Your task to perform on an android device: change the upload size in google photos Image 0: 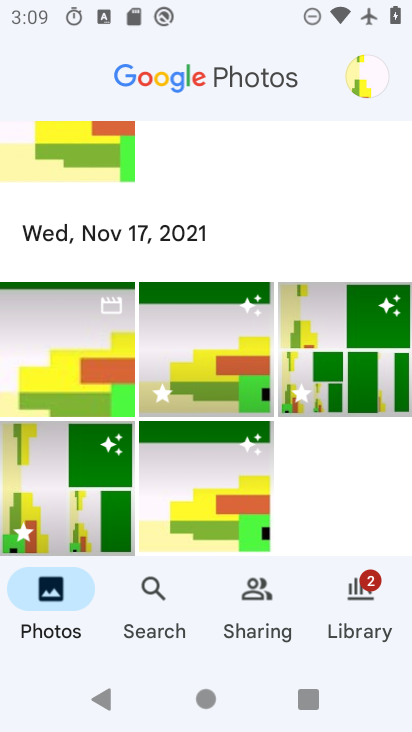
Step 0: press home button
Your task to perform on an android device: change the upload size in google photos Image 1: 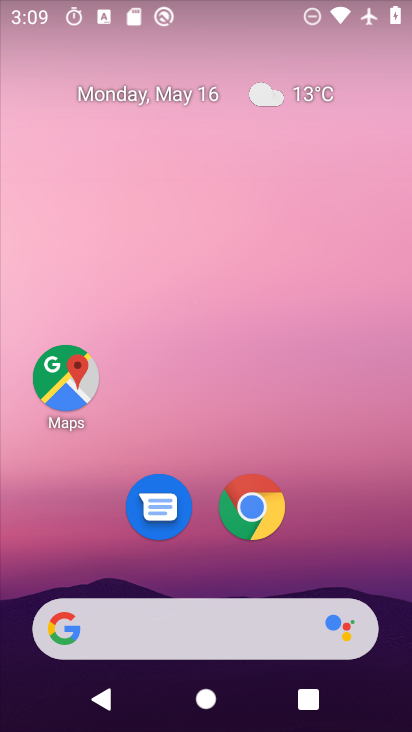
Step 1: drag from (255, 557) to (272, 194)
Your task to perform on an android device: change the upload size in google photos Image 2: 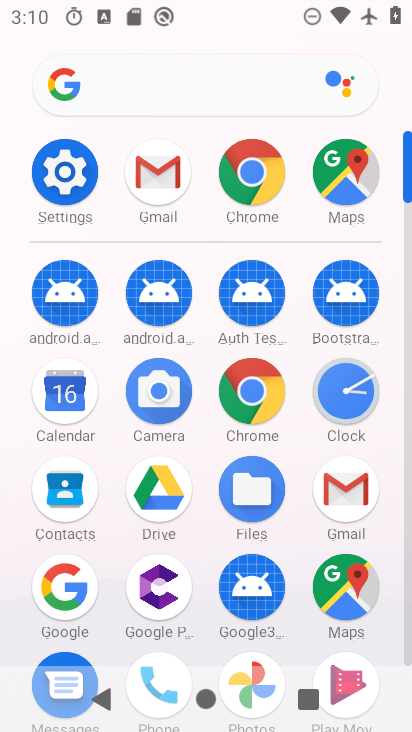
Step 2: click (225, 94)
Your task to perform on an android device: change the upload size in google photos Image 3: 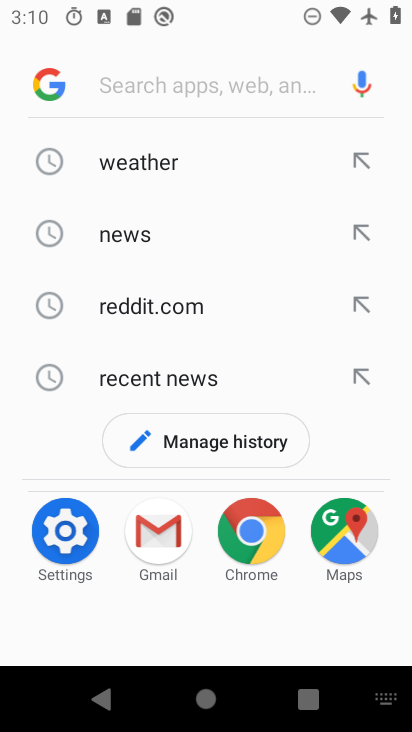
Step 3: press back button
Your task to perform on an android device: change the upload size in google photos Image 4: 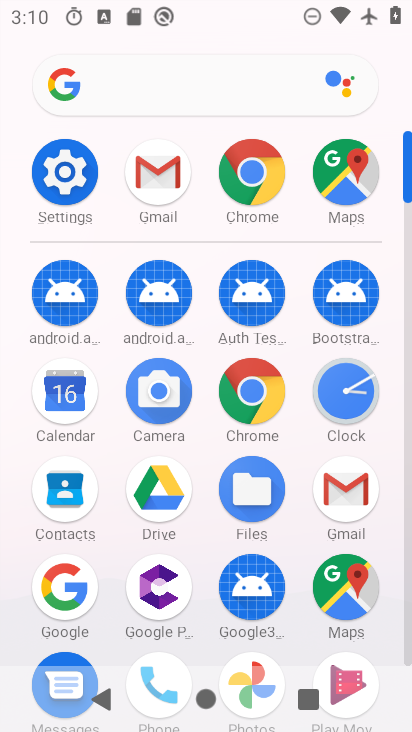
Step 4: drag from (213, 249) to (212, 114)
Your task to perform on an android device: change the upload size in google photos Image 5: 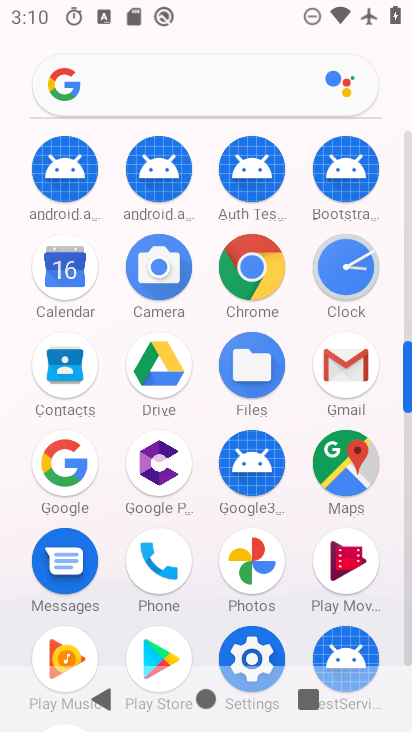
Step 5: click (246, 558)
Your task to perform on an android device: change the upload size in google photos Image 6: 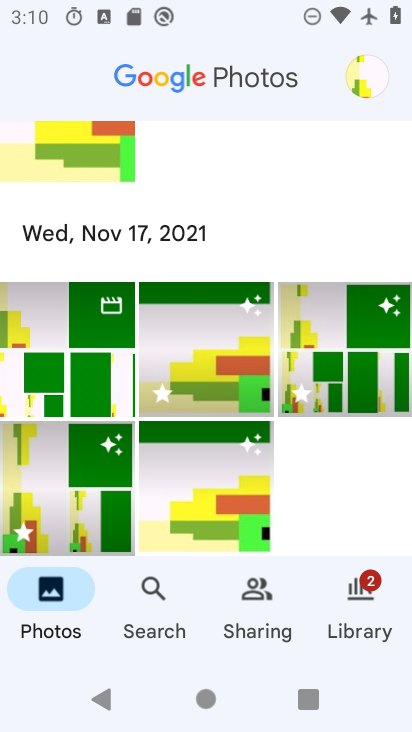
Step 6: click (370, 85)
Your task to perform on an android device: change the upload size in google photos Image 7: 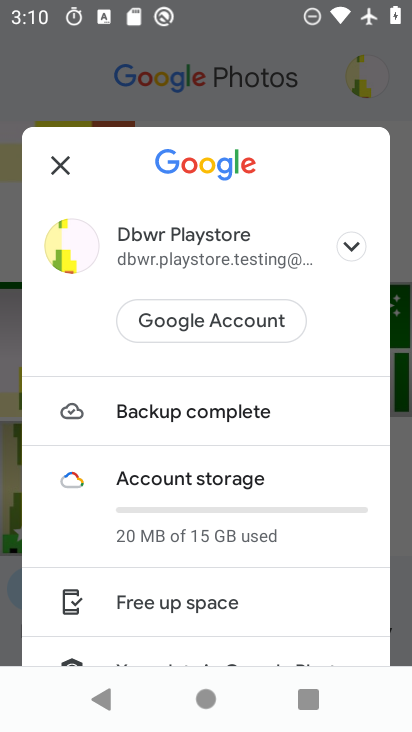
Step 7: drag from (189, 535) to (251, 320)
Your task to perform on an android device: change the upload size in google photos Image 8: 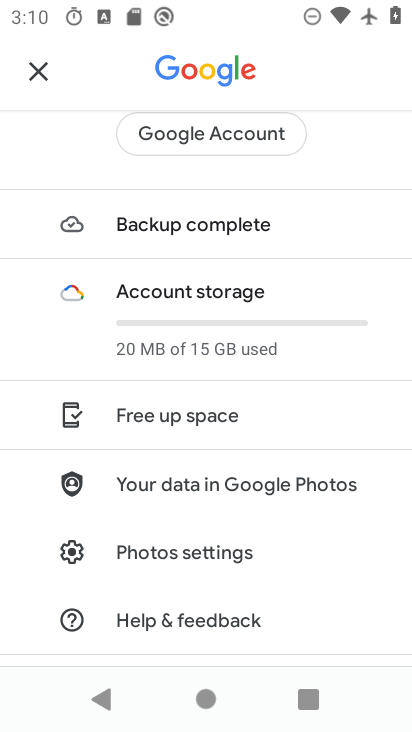
Step 8: click (231, 560)
Your task to perform on an android device: change the upload size in google photos Image 9: 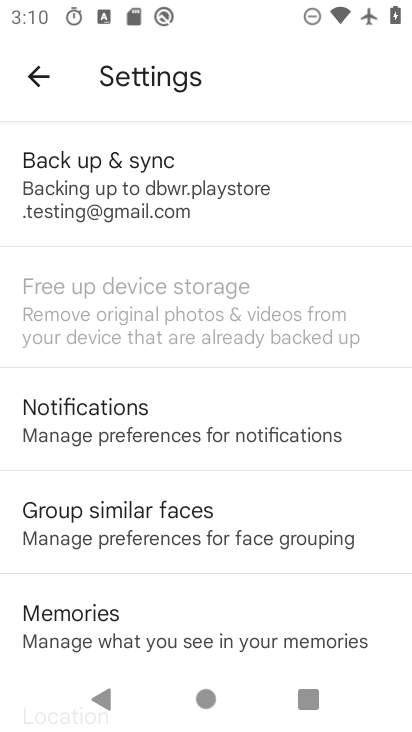
Step 9: drag from (201, 461) to (217, 271)
Your task to perform on an android device: change the upload size in google photos Image 10: 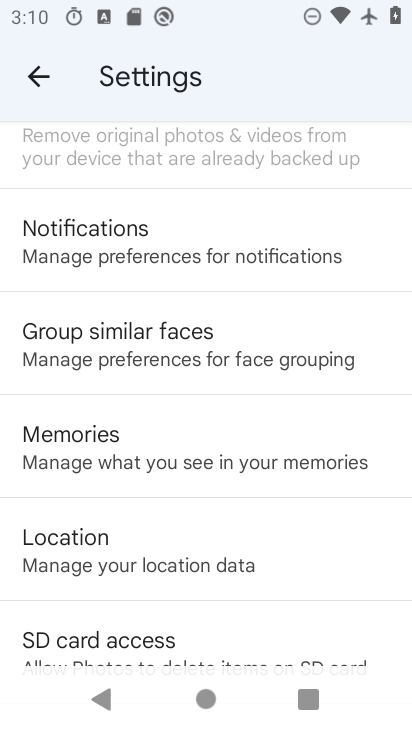
Step 10: drag from (199, 577) to (259, 249)
Your task to perform on an android device: change the upload size in google photos Image 11: 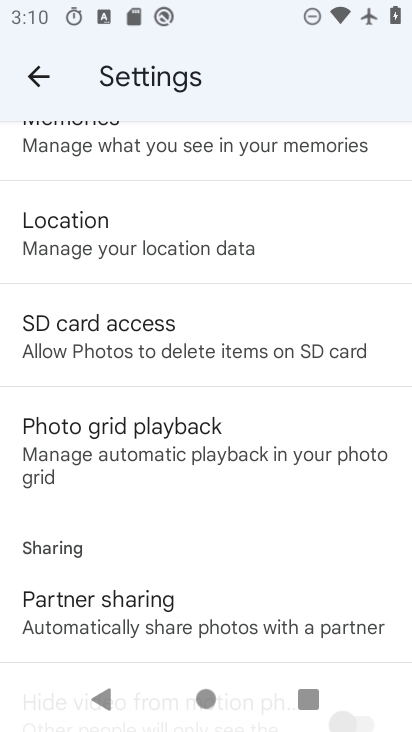
Step 11: drag from (240, 492) to (281, 255)
Your task to perform on an android device: change the upload size in google photos Image 12: 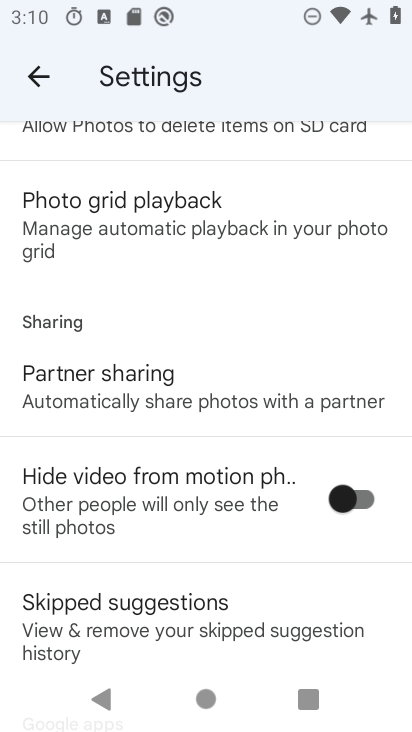
Step 12: drag from (280, 465) to (277, 237)
Your task to perform on an android device: change the upload size in google photos Image 13: 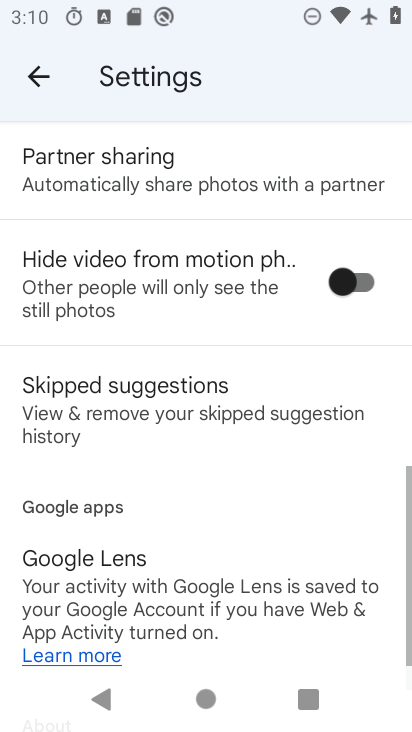
Step 13: drag from (278, 238) to (271, 583)
Your task to perform on an android device: change the upload size in google photos Image 14: 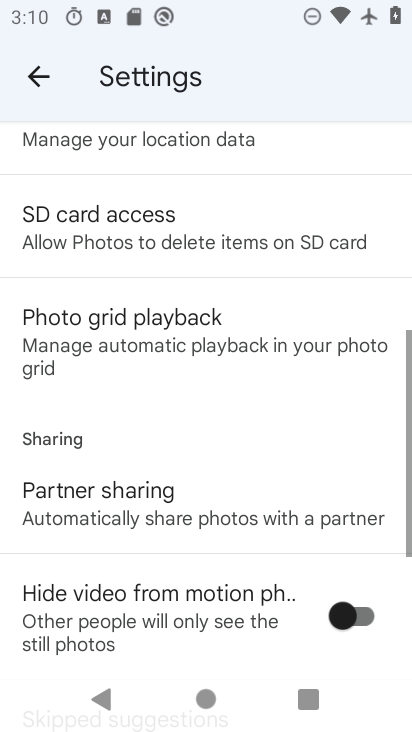
Step 14: drag from (275, 277) to (290, 580)
Your task to perform on an android device: change the upload size in google photos Image 15: 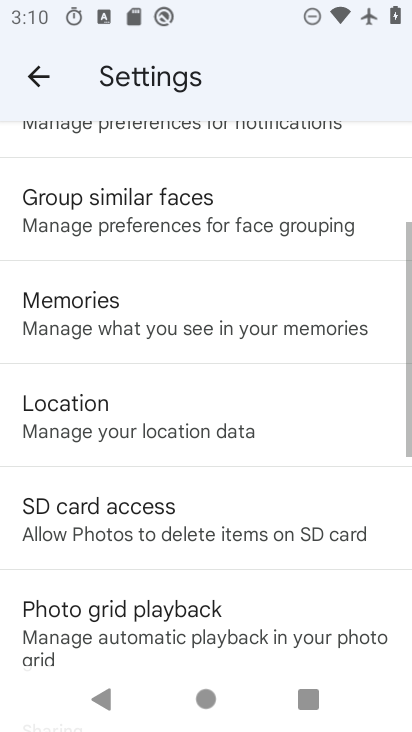
Step 15: drag from (271, 250) to (243, 628)
Your task to perform on an android device: change the upload size in google photos Image 16: 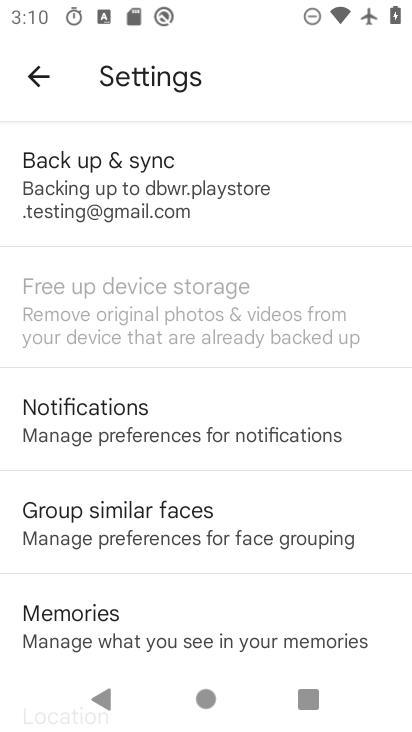
Step 16: drag from (238, 301) to (252, 499)
Your task to perform on an android device: change the upload size in google photos Image 17: 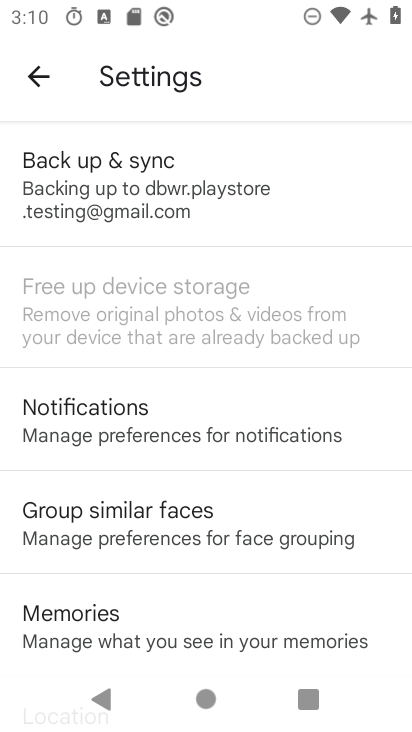
Step 17: click (239, 202)
Your task to perform on an android device: change the upload size in google photos Image 18: 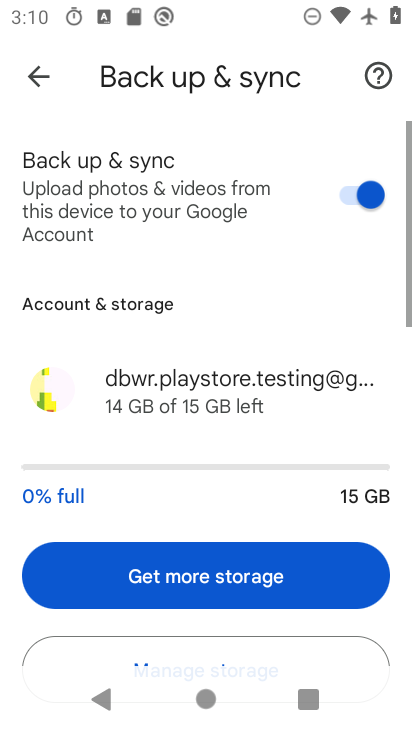
Step 18: drag from (254, 227) to (269, 137)
Your task to perform on an android device: change the upload size in google photos Image 19: 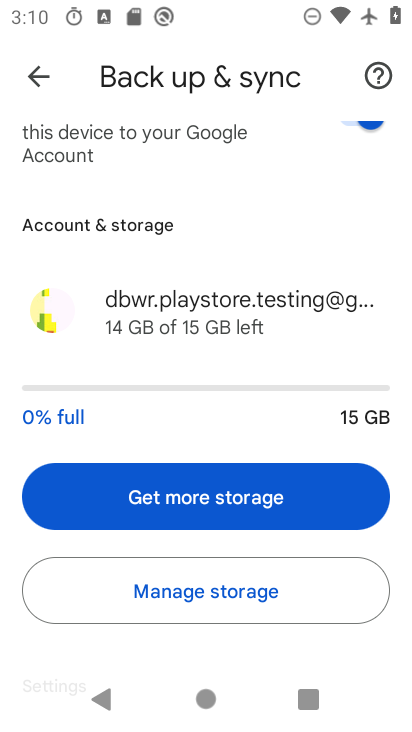
Step 19: drag from (267, 338) to (291, 211)
Your task to perform on an android device: change the upload size in google photos Image 20: 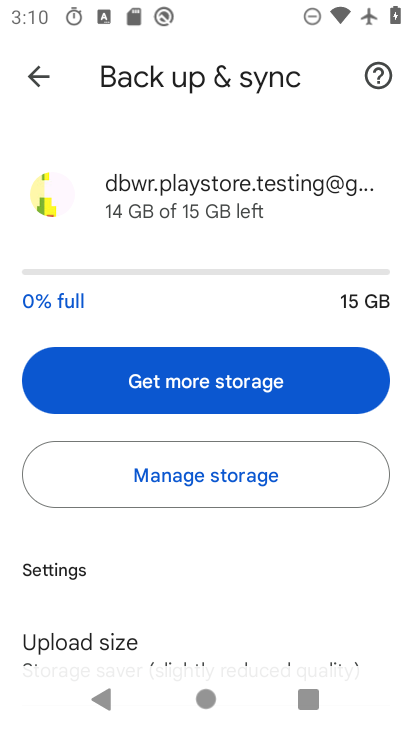
Step 20: drag from (210, 585) to (247, 279)
Your task to perform on an android device: change the upload size in google photos Image 21: 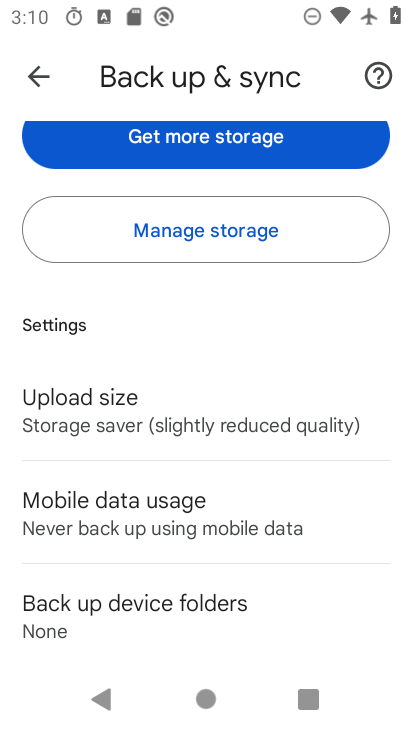
Step 21: click (193, 418)
Your task to perform on an android device: change the upload size in google photos Image 22: 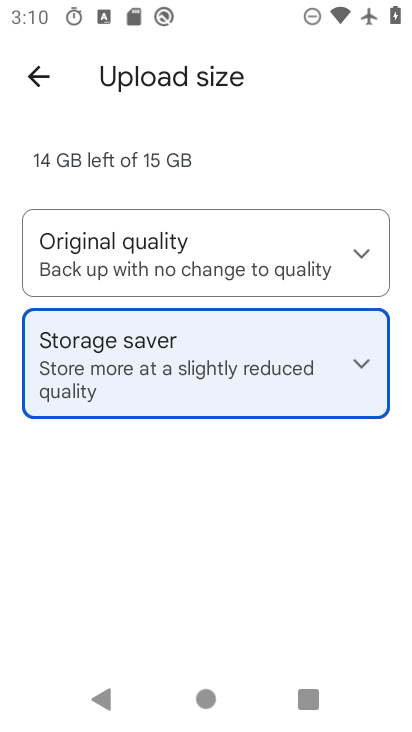
Step 22: click (215, 259)
Your task to perform on an android device: change the upload size in google photos Image 23: 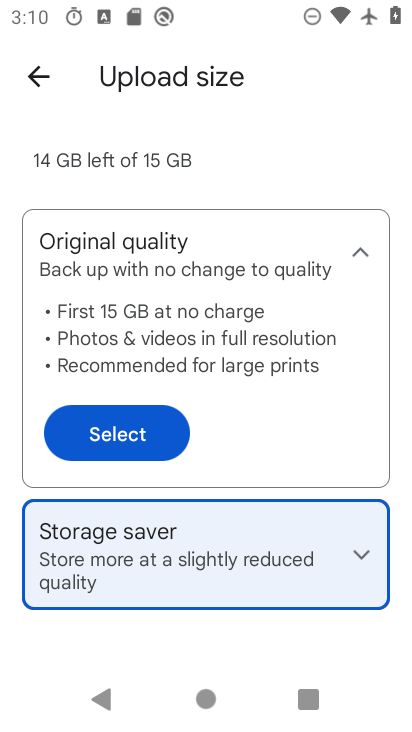
Step 23: click (123, 439)
Your task to perform on an android device: change the upload size in google photos Image 24: 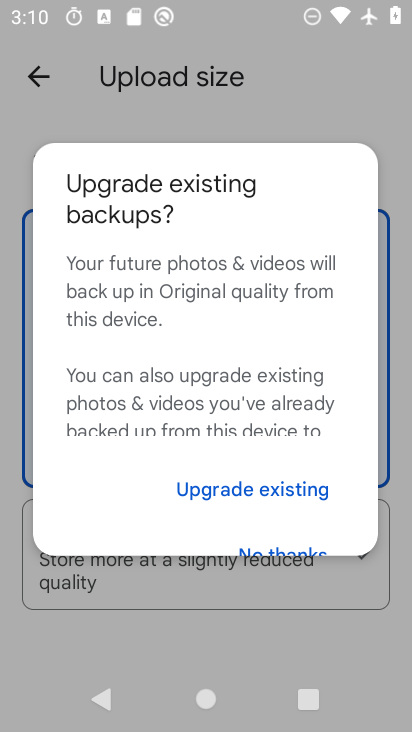
Step 24: click (232, 491)
Your task to perform on an android device: change the upload size in google photos Image 25: 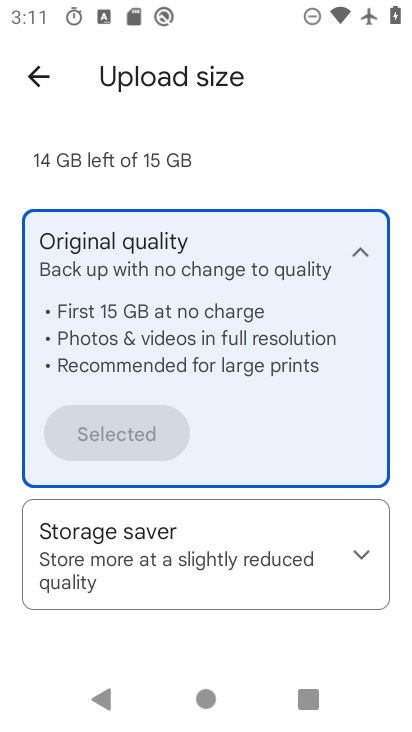
Step 25: task complete